Your task to perform on an android device: Open the web browser Image 0: 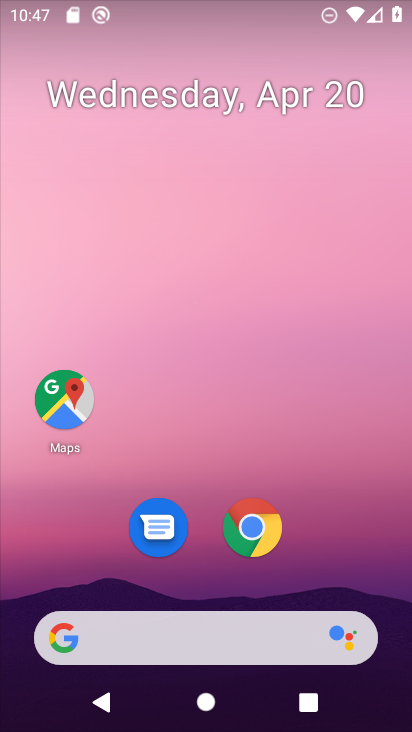
Step 0: click (254, 527)
Your task to perform on an android device: Open the web browser Image 1: 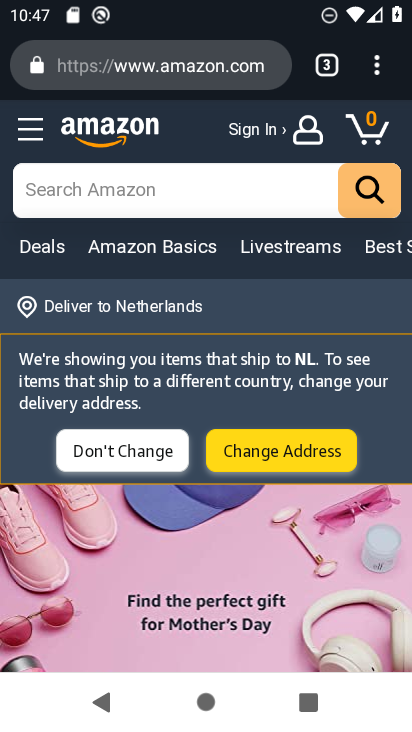
Step 1: task complete